Your task to perform on an android device: empty trash in the gmail app Image 0: 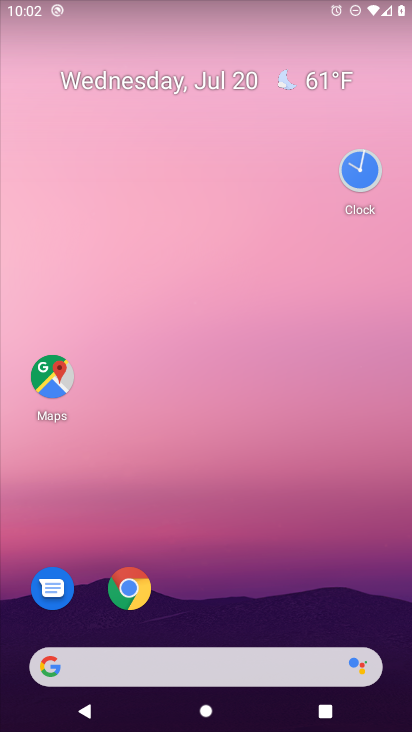
Step 0: drag from (57, 673) to (204, 10)
Your task to perform on an android device: empty trash in the gmail app Image 1: 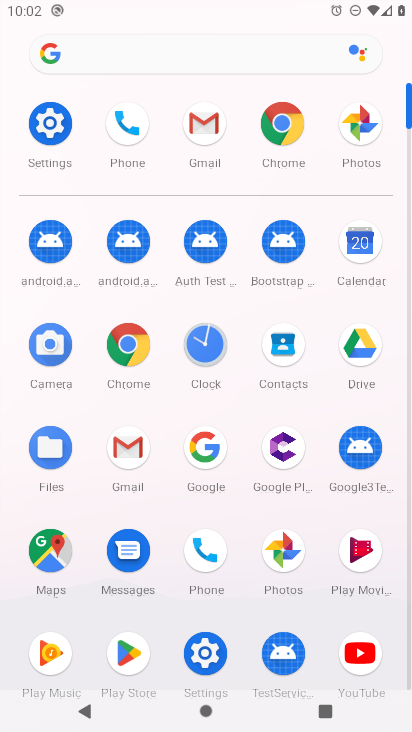
Step 1: click (210, 146)
Your task to perform on an android device: empty trash in the gmail app Image 2: 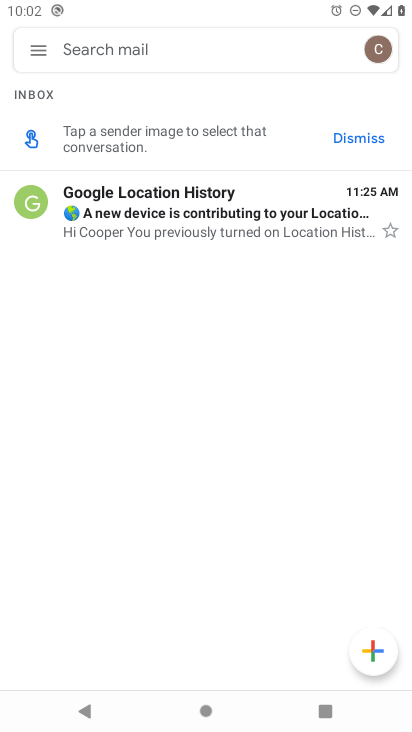
Step 2: click (33, 40)
Your task to perform on an android device: empty trash in the gmail app Image 3: 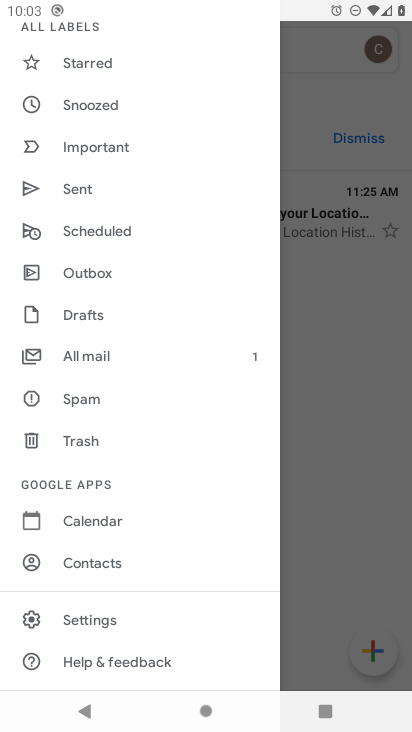
Step 3: click (69, 447)
Your task to perform on an android device: empty trash in the gmail app Image 4: 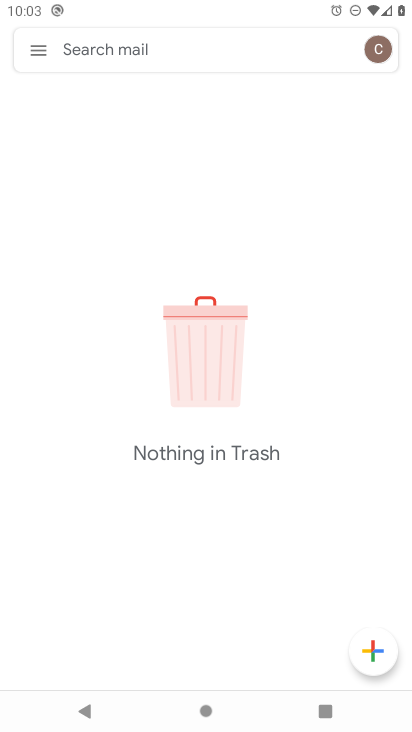
Step 4: task complete